Your task to perform on an android device: Open eBay Image 0: 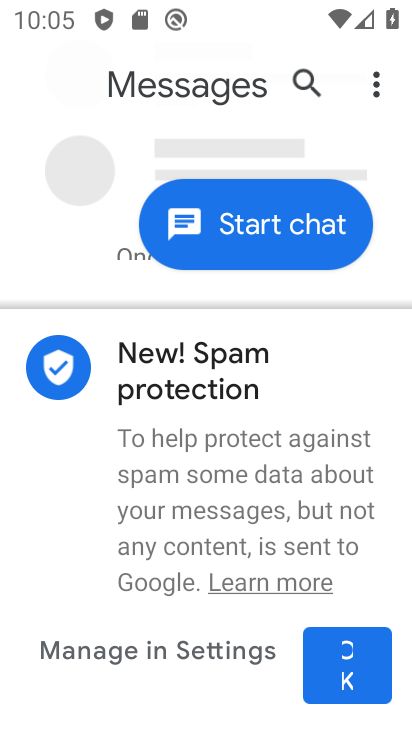
Step 0: press home button
Your task to perform on an android device: Open eBay Image 1: 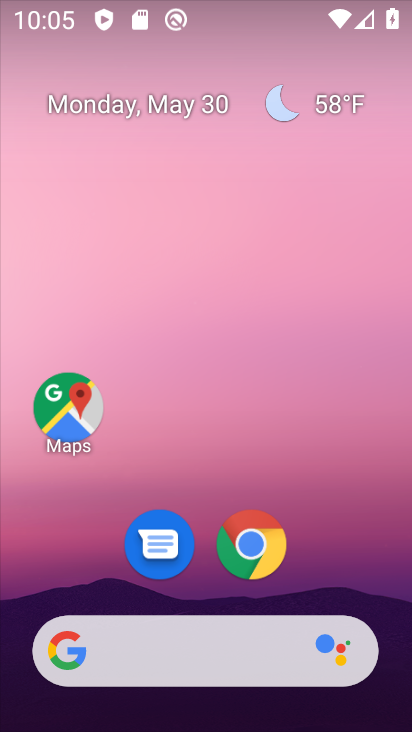
Step 1: click (243, 656)
Your task to perform on an android device: Open eBay Image 2: 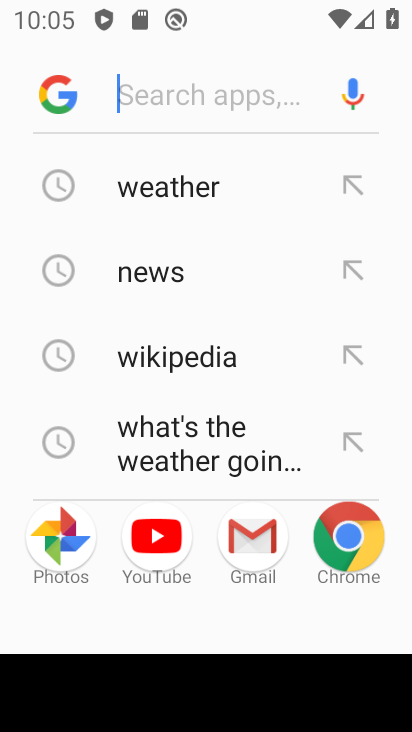
Step 2: type "ebay.com"
Your task to perform on an android device: Open eBay Image 3: 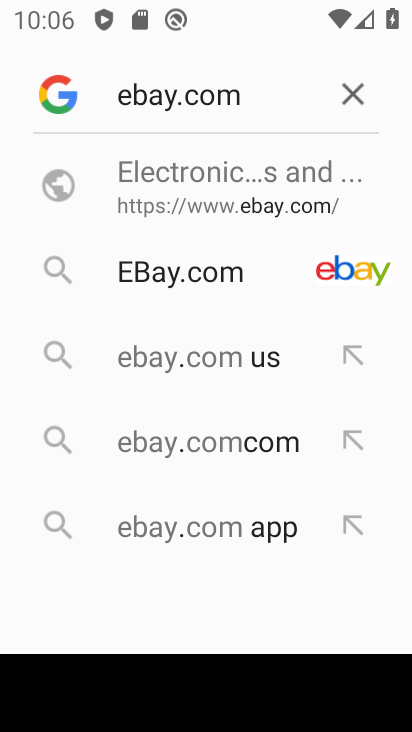
Step 3: click (156, 260)
Your task to perform on an android device: Open eBay Image 4: 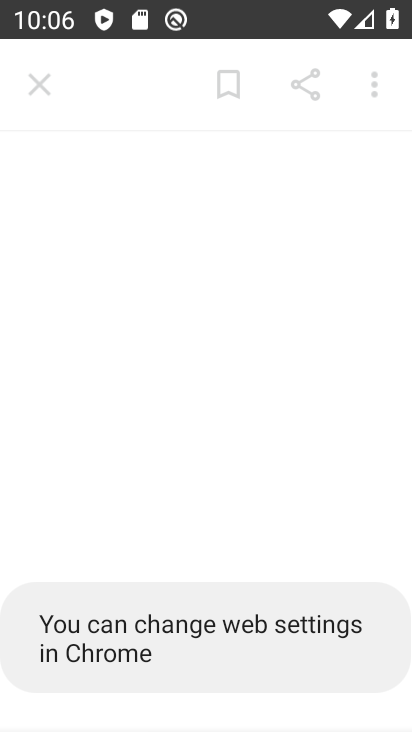
Step 4: task complete